Your task to perform on an android device: find snoozed emails in the gmail app Image 0: 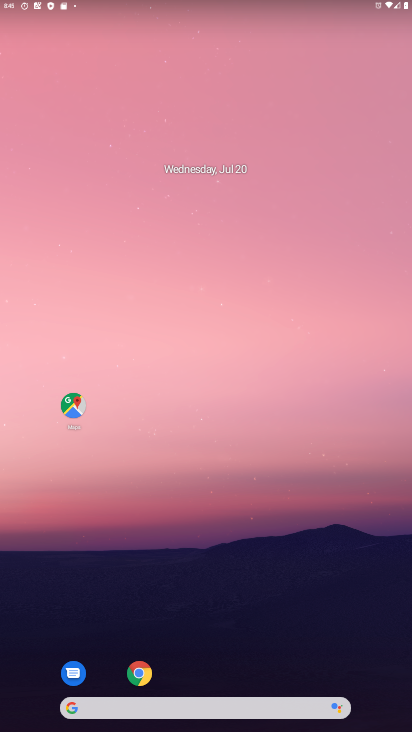
Step 0: drag from (199, 669) to (147, 170)
Your task to perform on an android device: find snoozed emails in the gmail app Image 1: 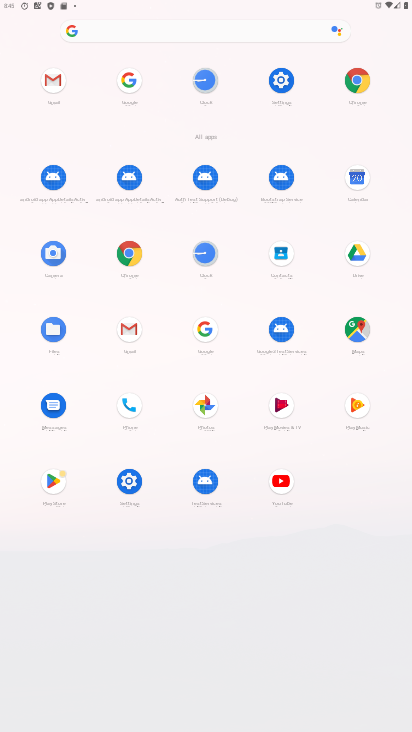
Step 1: click (47, 77)
Your task to perform on an android device: find snoozed emails in the gmail app Image 2: 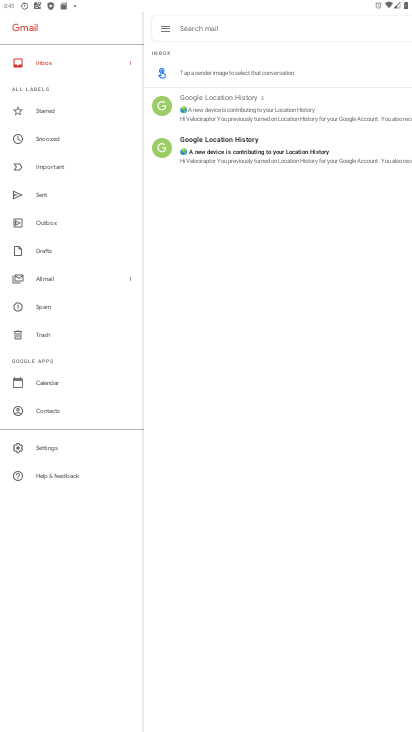
Step 2: click (54, 140)
Your task to perform on an android device: find snoozed emails in the gmail app Image 3: 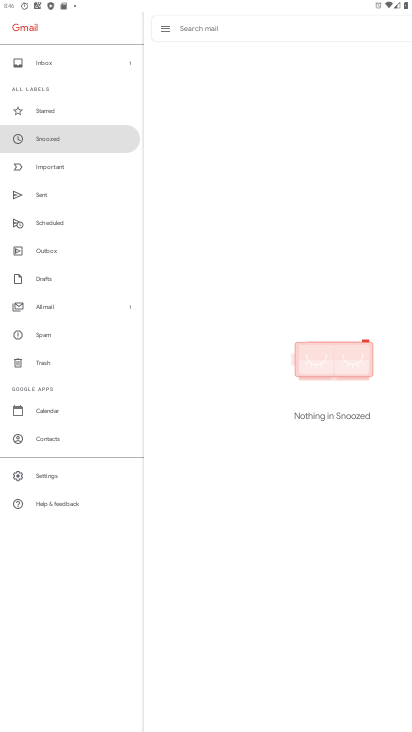
Step 3: task complete